Your task to perform on an android device: Go to wifi settings Image 0: 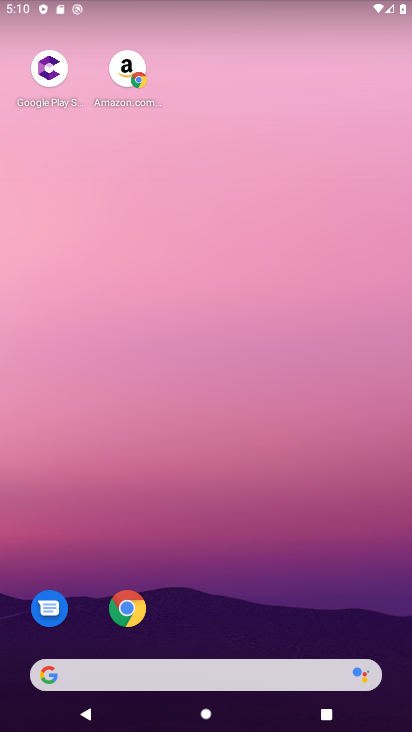
Step 0: drag from (239, 577) to (244, 161)
Your task to perform on an android device: Go to wifi settings Image 1: 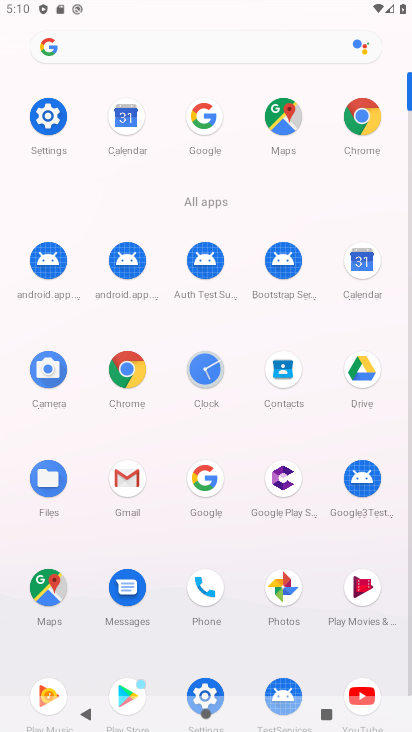
Step 1: click (48, 117)
Your task to perform on an android device: Go to wifi settings Image 2: 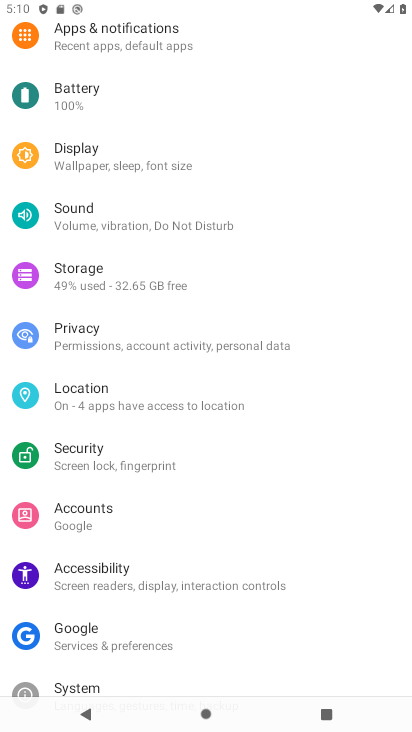
Step 2: drag from (113, 111) to (86, 221)
Your task to perform on an android device: Go to wifi settings Image 3: 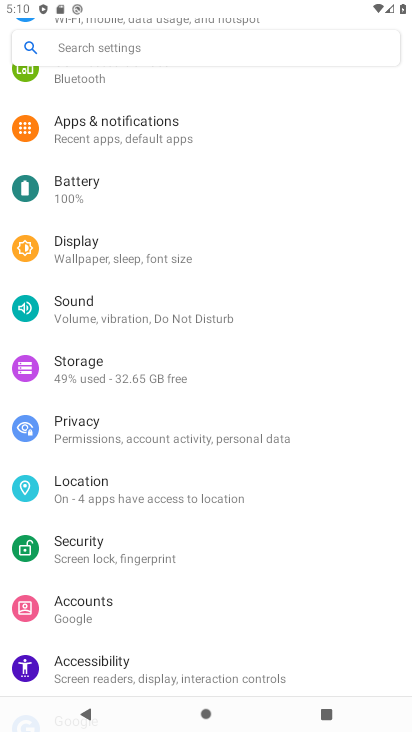
Step 3: drag from (112, 100) to (134, 251)
Your task to perform on an android device: Go to wifi settings Image 4: 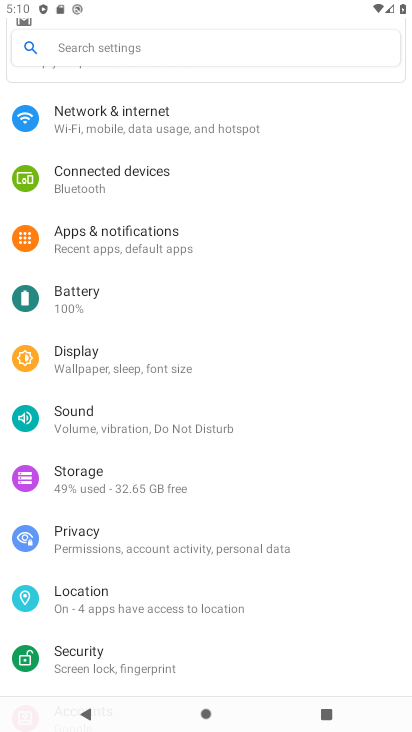
Step 4: click (117, 114)
Your task to perform on an android device: Go to wifi settings Image 5: 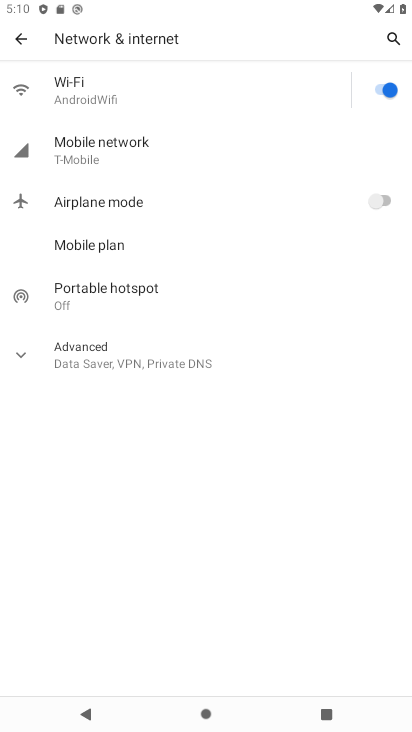
Step 5: click (94, 98)
Your task to perform on an android device: Go to wifi settings Image 6: 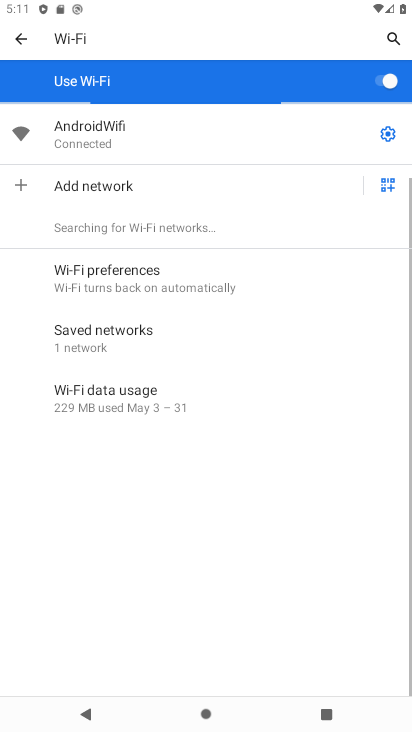
Step 6: click (388, 131)
Your task to perform on an android device: Go to wifi settings Image 7: 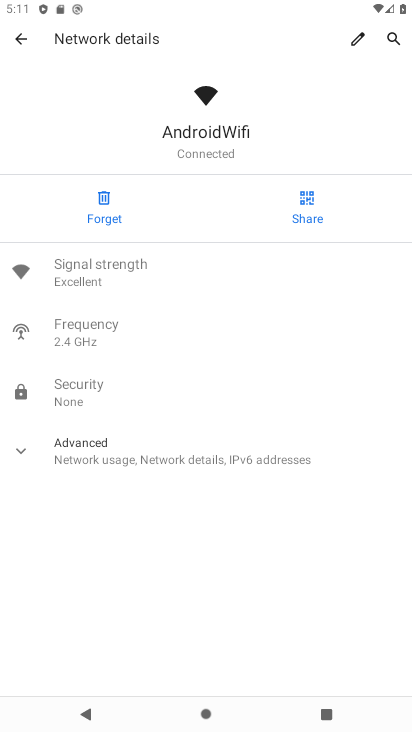
Step 7: task complete